Your task to perform on an android device: set the stopwatch Image 0: 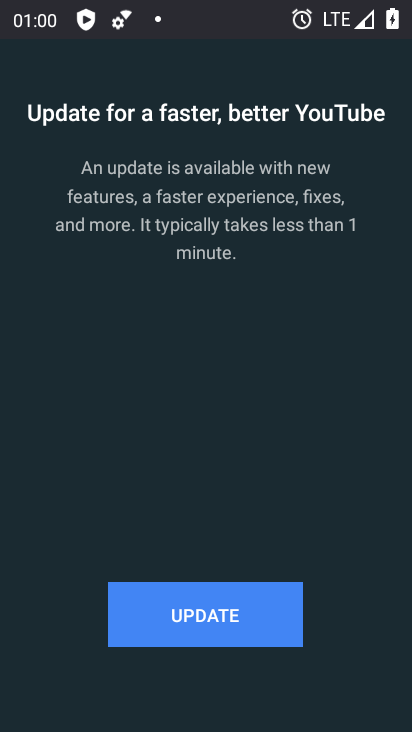
Step 0: press back button
Your task to perform on an android device: set the stopwatch Image 1: 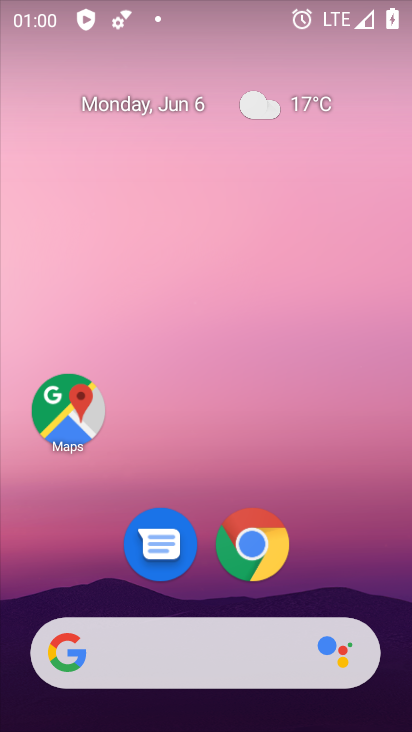
Step 1: drag from (362, 575) to (268, 163)
Your task to perform on an android device: set the stopwatch Image 2: 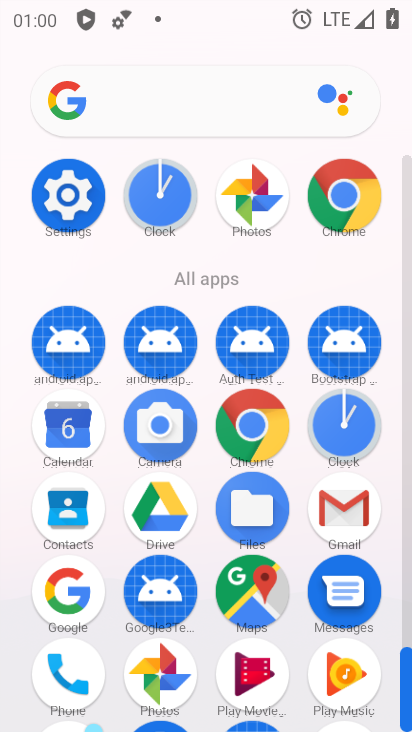
Step 2: click (174, 212)
Your task to perform on an android device: set the stopwatch Image 3: 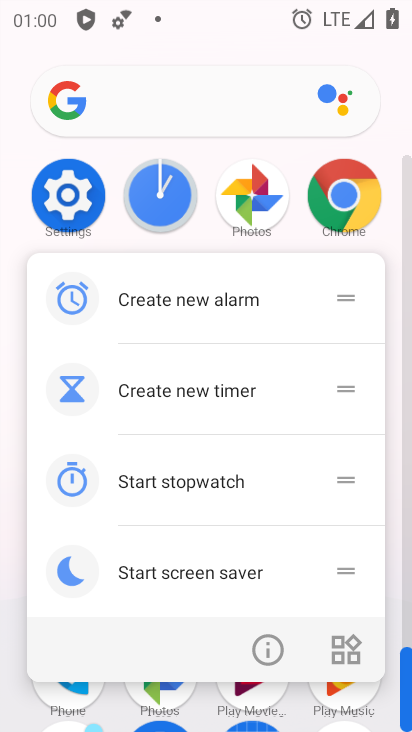
Step 3: click (155, 220)
Your task to perform on an android device: set the stopwatch Image 4: 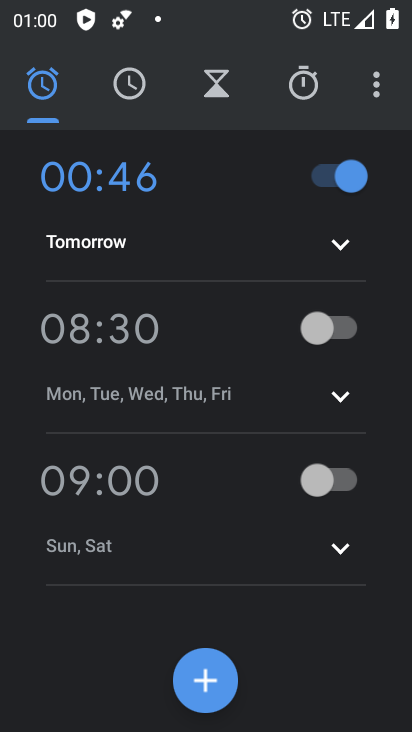
Step 4: click (304, 76)
Your task to perform on an android device: set the stopwatch Image 5: 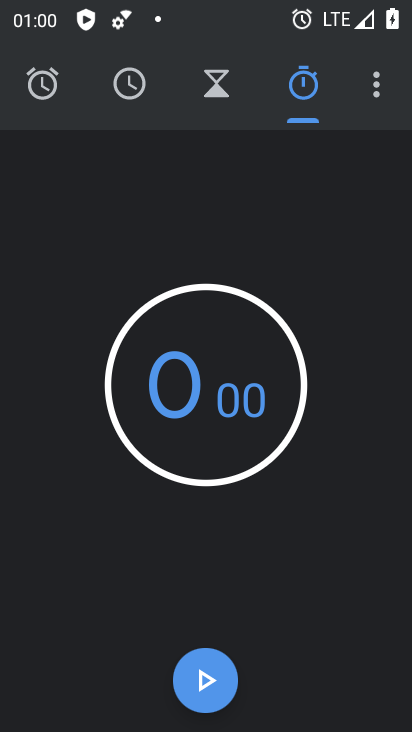
Step 5: click (220, 665)
Your task to perform on an android device: set the stopwatch Image 6: 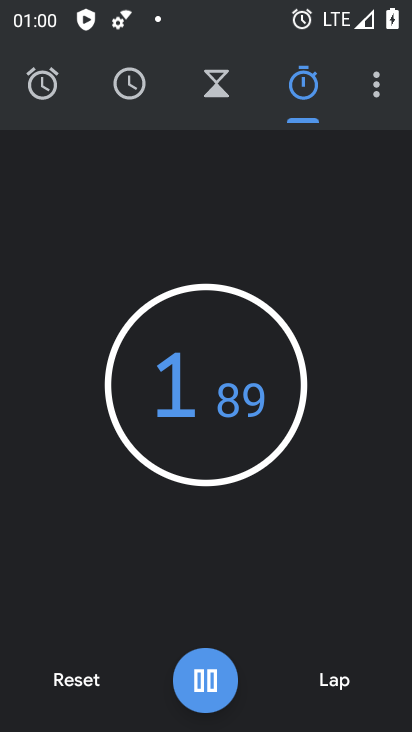
Step 6: task complete